Your task to perform on an android device: toggle pop-ups in chrome Image 0: 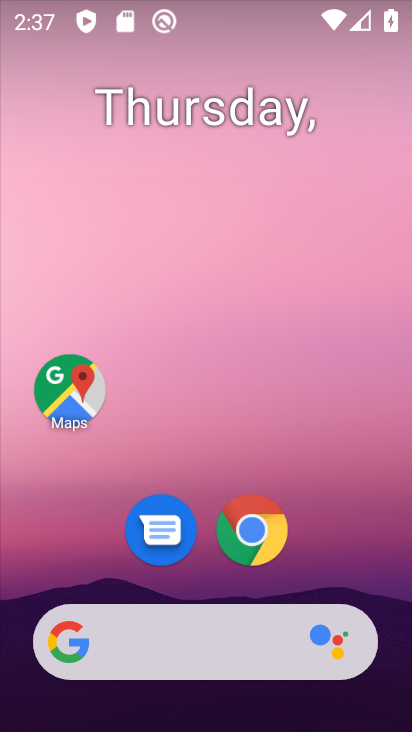
Step 0: press home button
Your task to perform on an android device: toggle pop-ups in chrome Image 1: 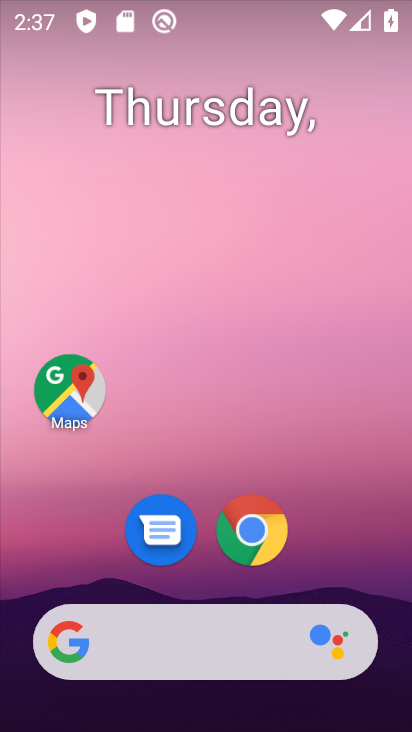
Step 1: click (258, 545)
Your task to perform on an android device: toggle pop-ups in chrome Image 2: 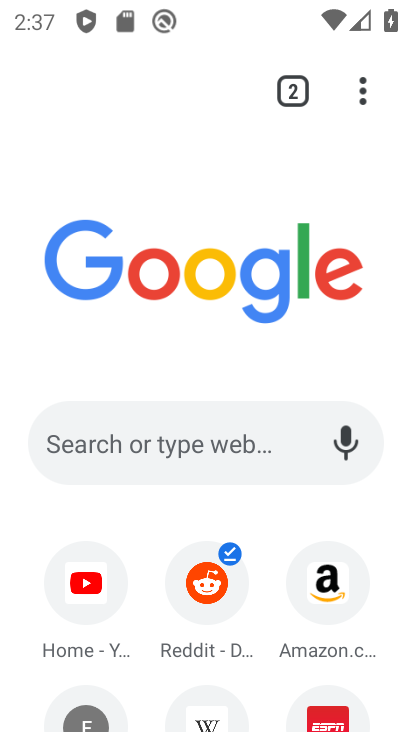
Step 2: click (365, 85)
Your task to perform on an android device: toggle pop-ups in chrome Image 3: 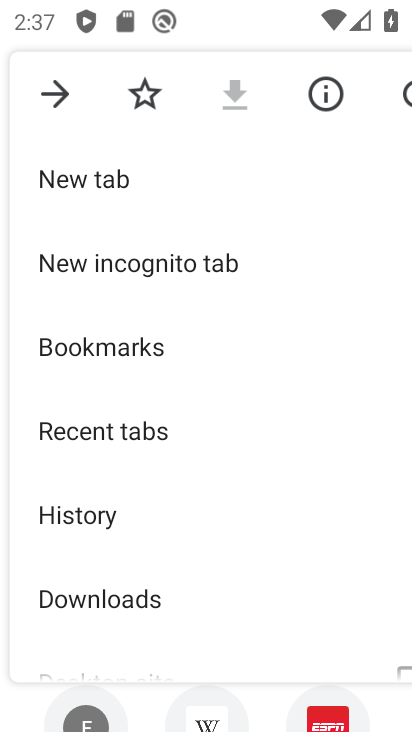
Step 3: drag from (251, 577) to (245, 194)
Your task to perform on an android device: toggle pop-ups in chrome Image 4: 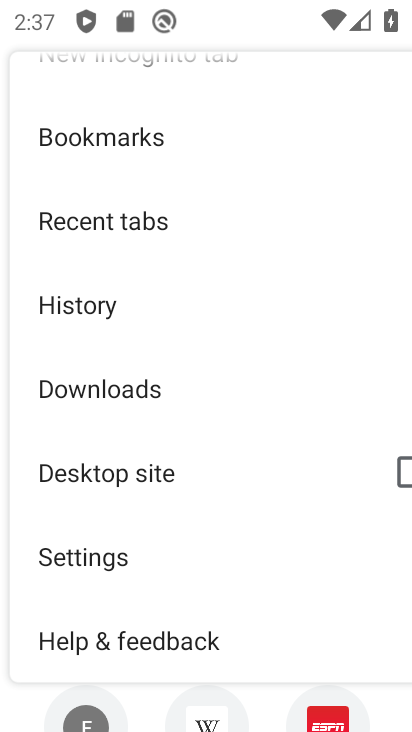
Step 4: click (104, 569)
Your task to perform on an android device: toggle pop-ups in chrome Image 5: 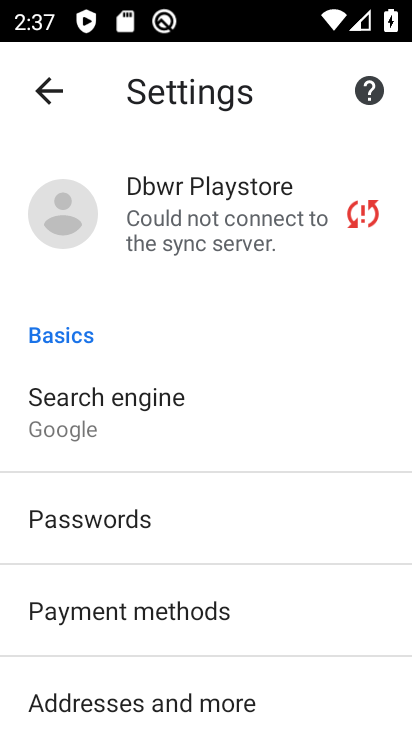
Step 5: drag from (264, 642) to (216, 359)
Your task to perform on an android device: toggle pop-ups in chrome Image 6: 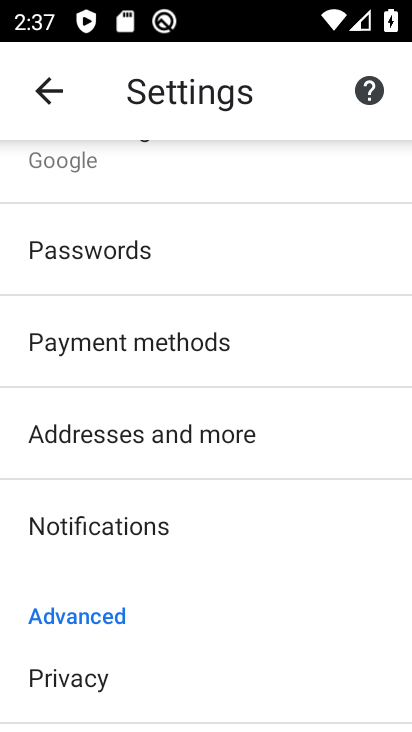
Step 6: click (204, 385)
Your task to perform on an android device: toggle pop-ups in chrome Image 7: 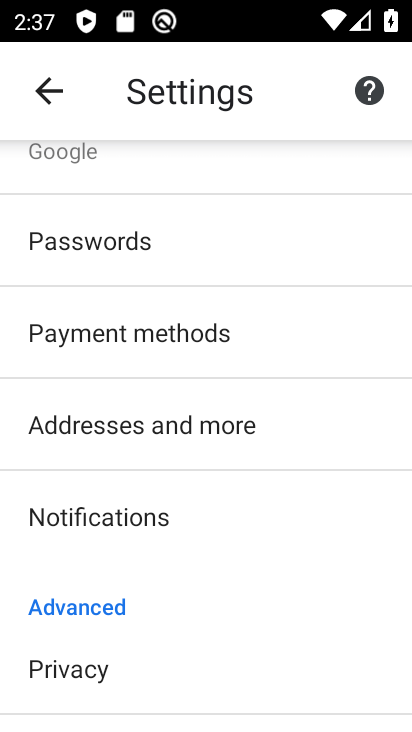
Step 7: drag from (157, 617) to (160, 158)
Your task to perform on an android device: toggle pop-ups in chrome Image 8: 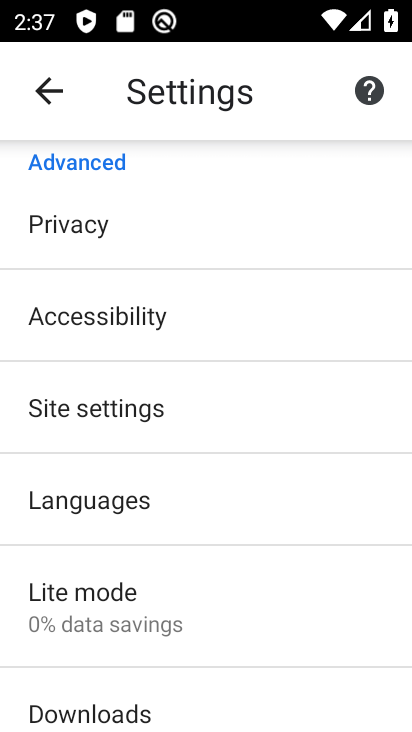
Step 8: click (158, 424)
Your task to perform on an android device: toggle pop-ups in chrome Image 9: 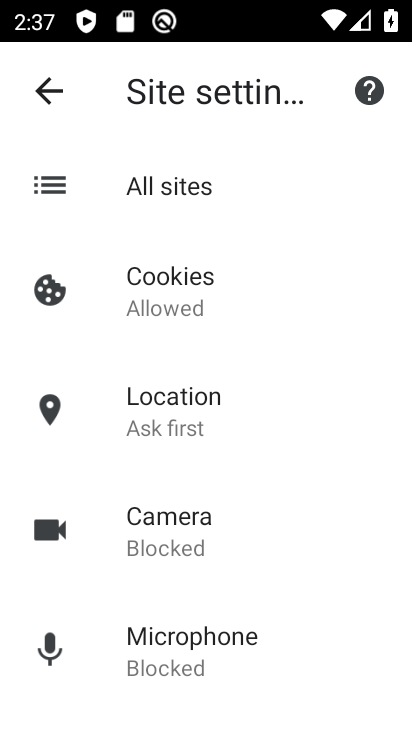
Step 9: drag from (168, 621) to (135, 308)
Your task to perform on an android device: toggle pop-ups in chrome Image 10: 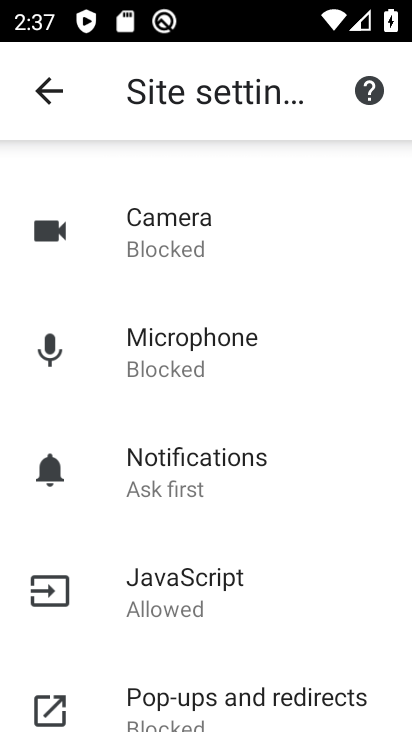
Step 10: drag from (163, 589) to (160, 375)
Your task to perform on an android device: toggle pop-ups in chrome Image 11: 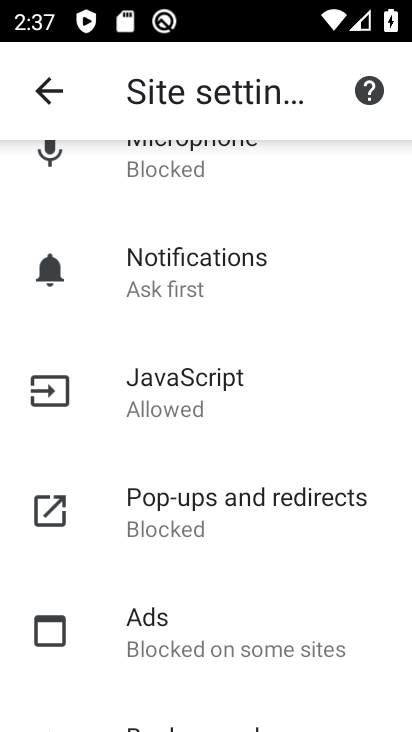
Step 11: click (177, 532)
Your task to perform on an android device: toggle pop-ups in chrome Image 12: 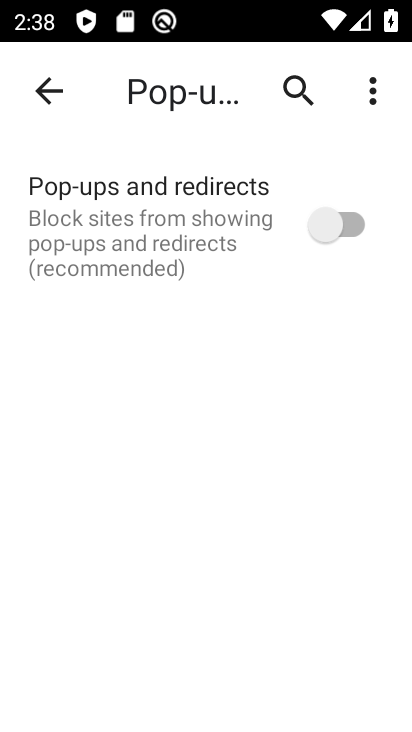
Step 12: click (266, 232)
Your task to perform on an android device: toggle pop-ups in chrome Image 13: 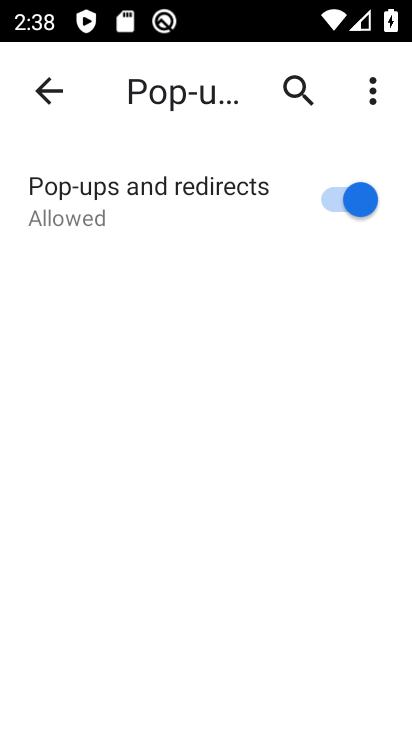
Step 13: task complete